Your task to perform on an android device: turn off translation in the chrome app Image 0: 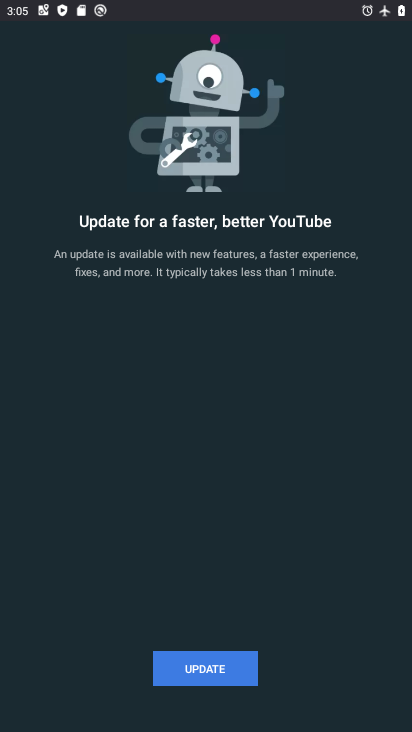
Step 0: task complete